Your task to perform on an android device: Go to Amazon Image 0: 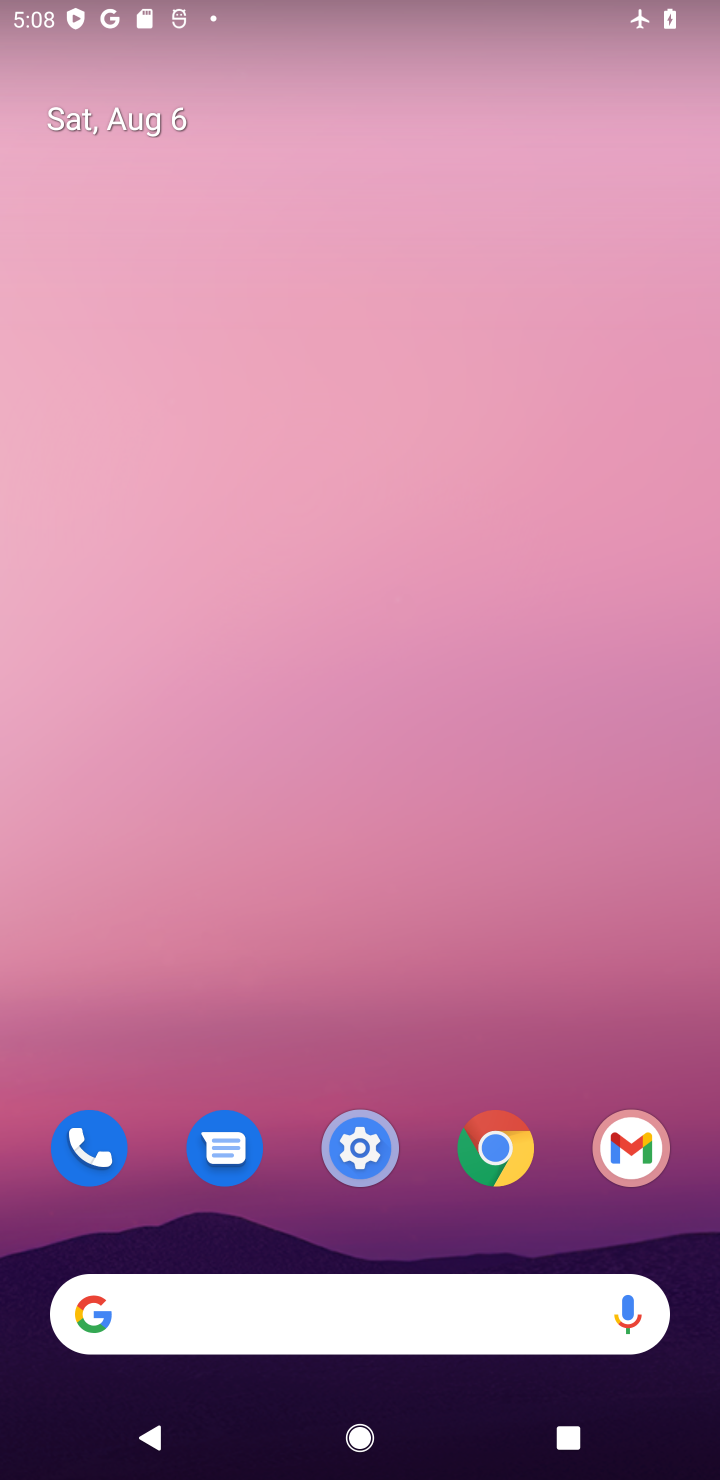
Step 0: click (482, 1141)
Your task to perform on an android device: Go to Amazon Image 1: 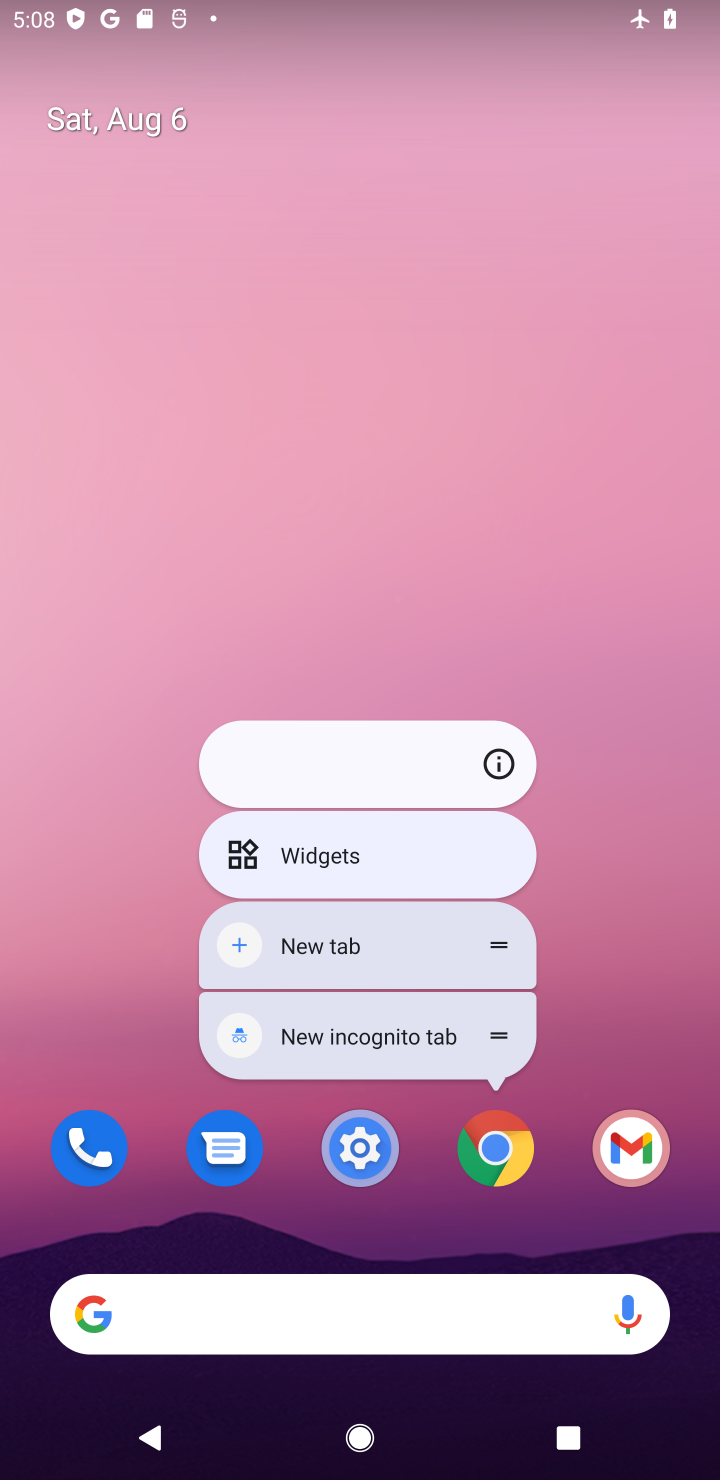
Step 1: click (458, 1194)
Your task to perform on an android device: Go to Amazon Image 2: 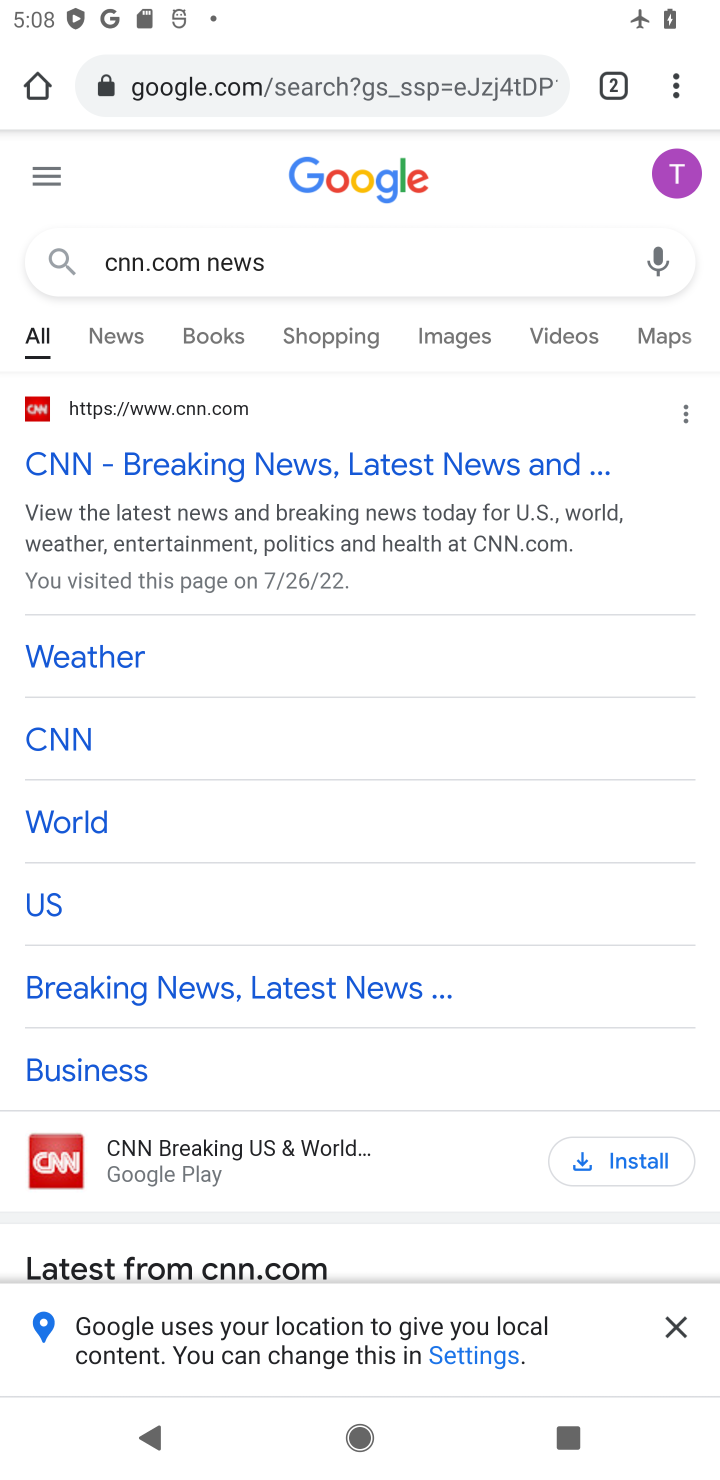
Step 2: click (622, 68)
Your task to perform on an android device: Go to Amazon Image 3: 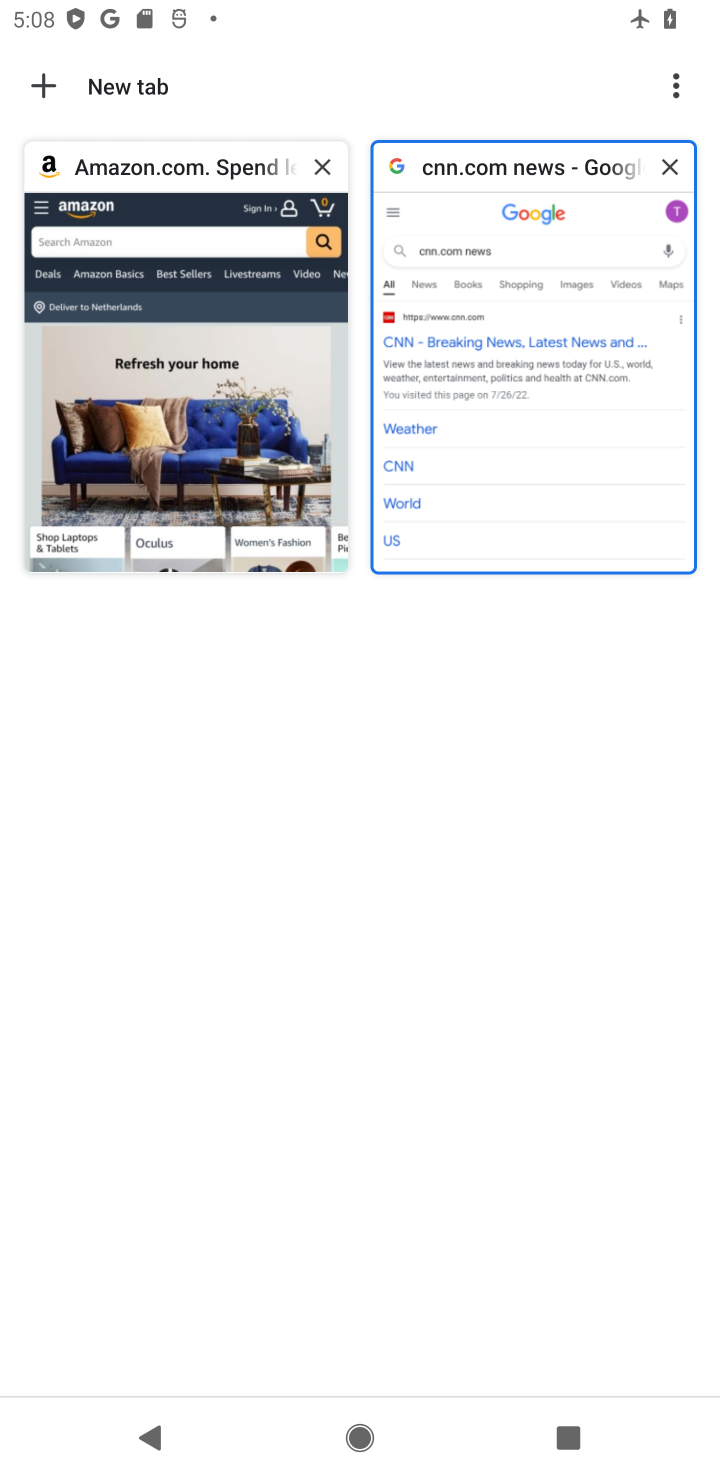
Step 3: click (155, 256)
Your task to perform on an android device: Go to Amazon Image 4: 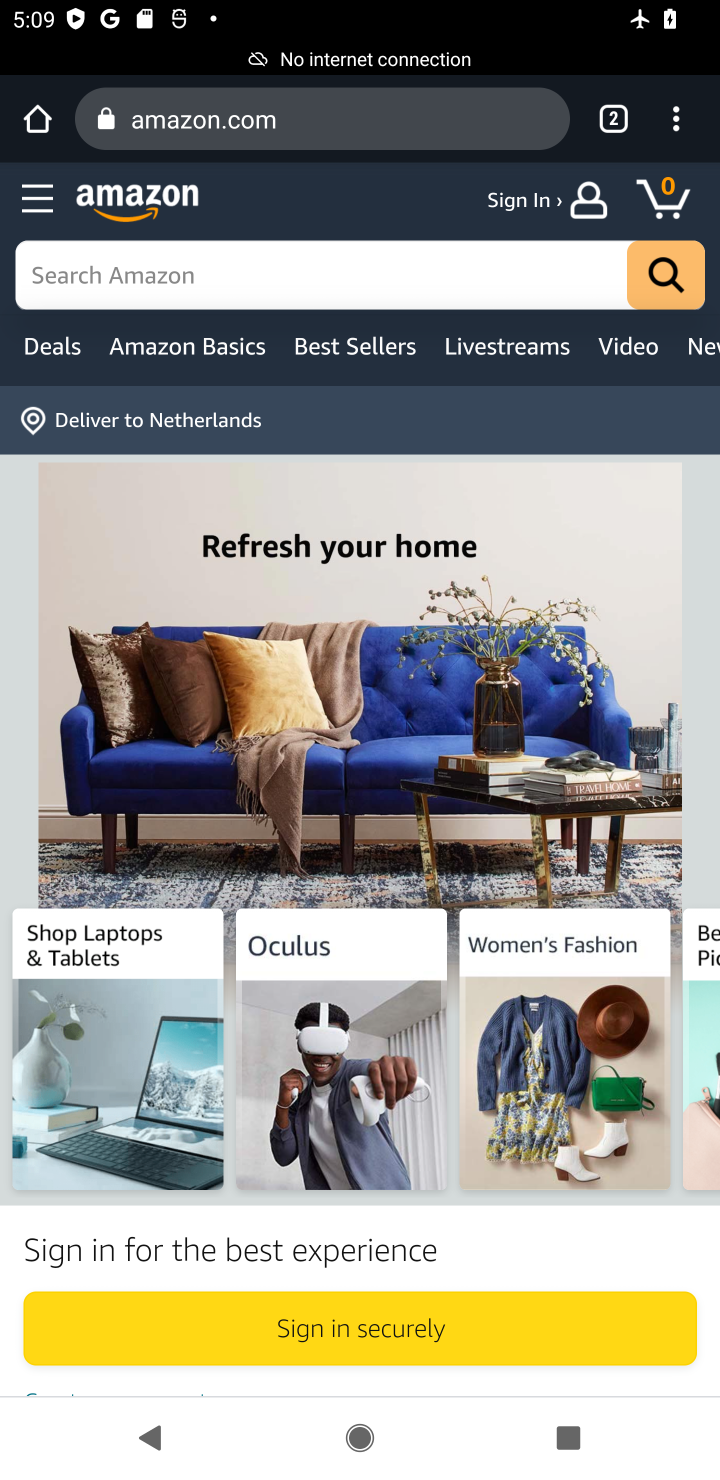
Step 4: task complete